Your task to perform on an android device: turn notification dots off Image 0: 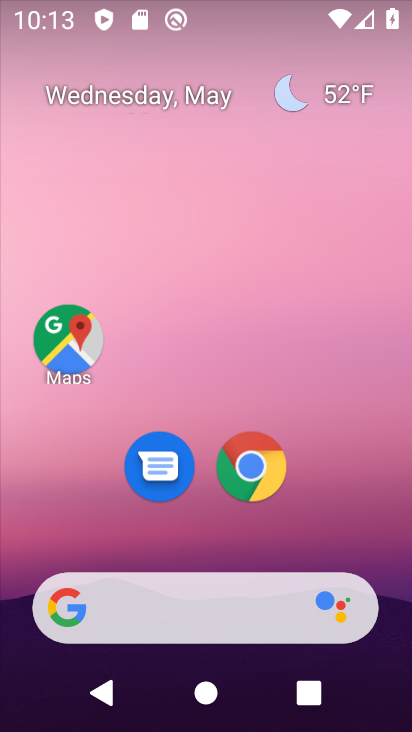
Step 0: drag from (218, 527) to (231, 119)
Your task to perform on an android device: turn notification dots off Image 1: 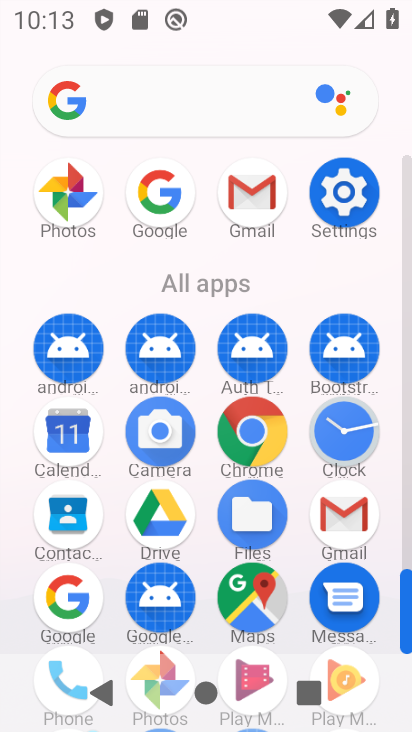
Step 1: click (332, 187)
Your task to perform on an android device: turn notification dots off Image 2: 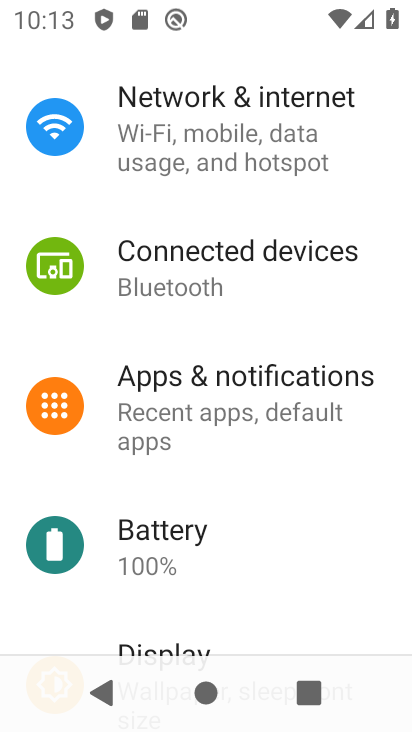
Step 2: click (204, 405)
Your task to perform on an android device: turn notification dots off Image 3: 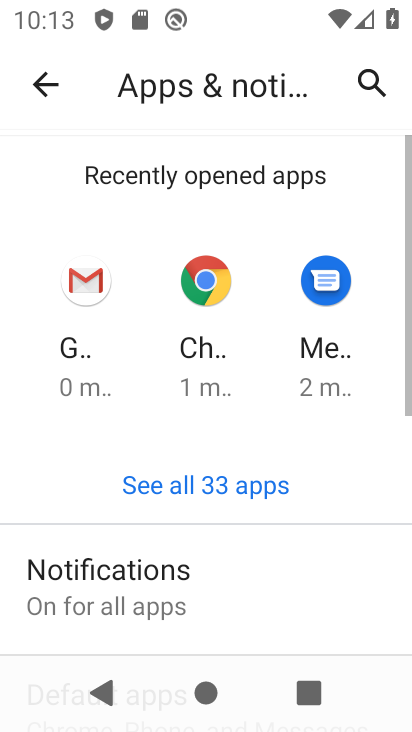
Step 3: click (145, 571)
Your task to perform on an android device: turn notification dots off Image 4: 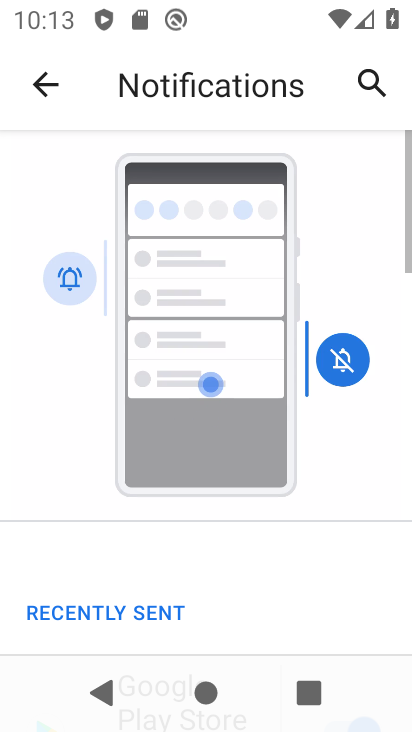
Step 4: drag from (209, 535) to (263, 104)
Your task to perform on an android device: turn notification dots off Image 5: 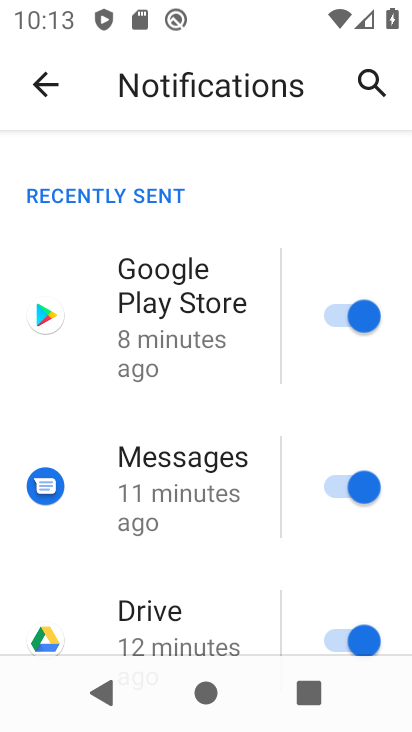
Step 5: drag from (212, 574) to (216, 82)
Your task to perform on an android device: turn notification dots off Image 6: 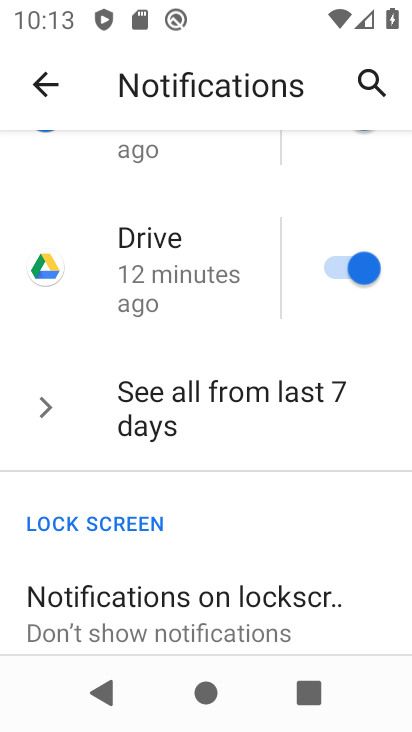
Step 6: drag from (182, 597) to (225, 257)
Your task to perform on an android device: turn notification dots off Image 7: 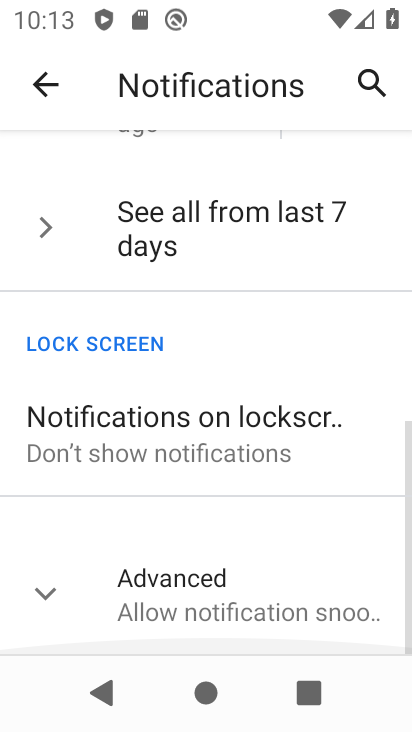
Step 7: click (145, 602)
Your task to perform on an android device: turn notification dots off Image 8: 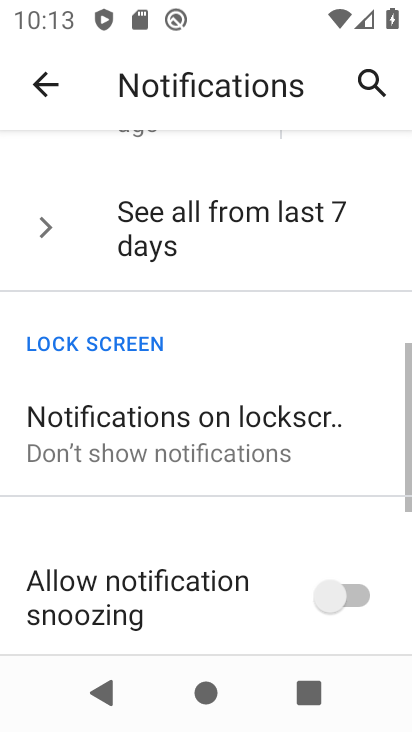
Step 8: drag from (286, 588) to (269, 181)
Your task to perform on an android device: turn notification dots off Image 9: 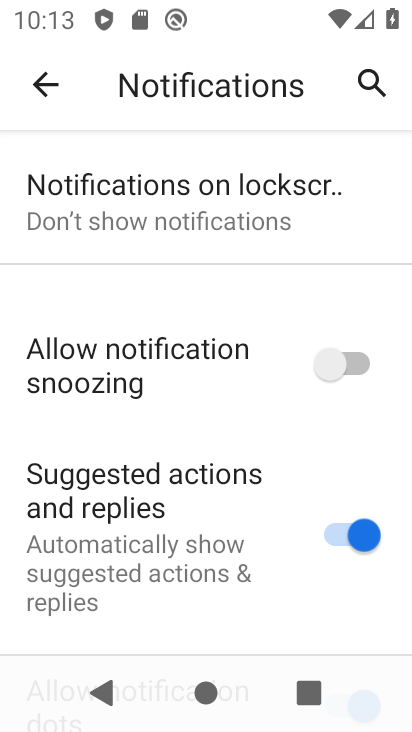
Step 9: drag from (176, 584) to (197, 181)
Your task to perform on an android device: turn notification dots off Image 10: 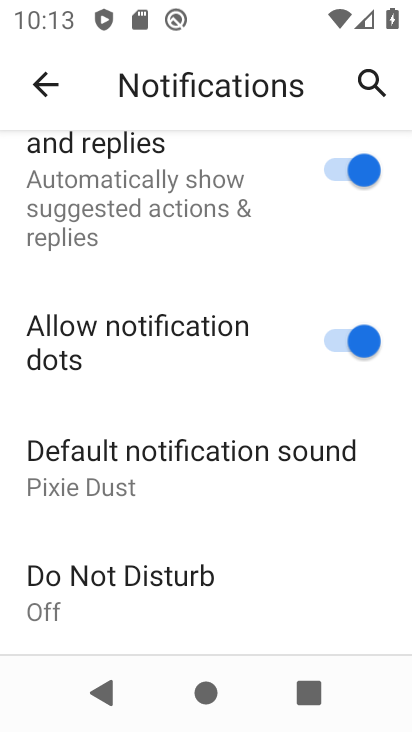
Step 10: click (348, 349)
Your task to perform on an android device: turn notification dots off Image 11: 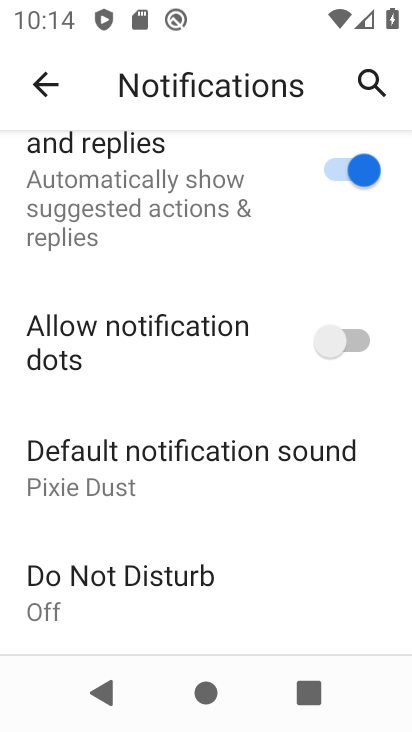
Step 11: task complete